Your task to perform on an android device: open sync settings in chrome Image 0: 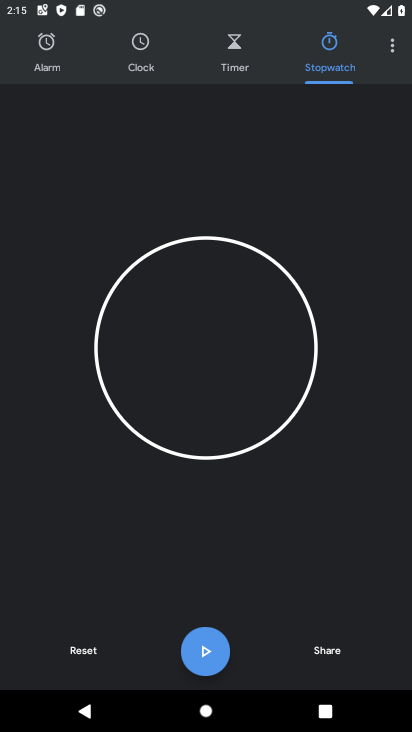
Step 0: press home button
Your task to perform on an android device: open sync settings in chrome Image 1: 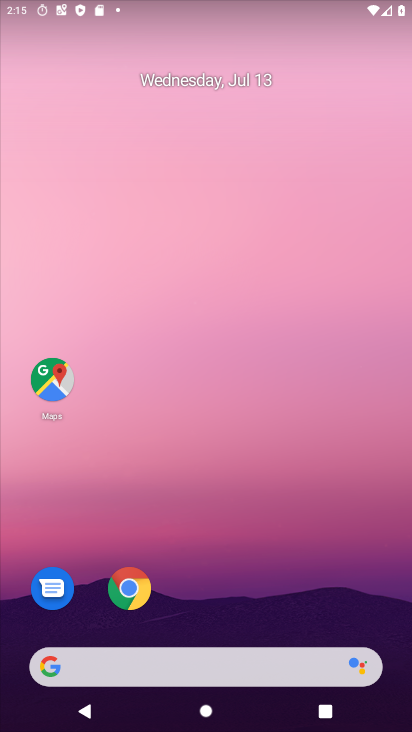
Step 1: click (132, 584)
Your task to perform on an android device: open sync settings in chrome Image 2: 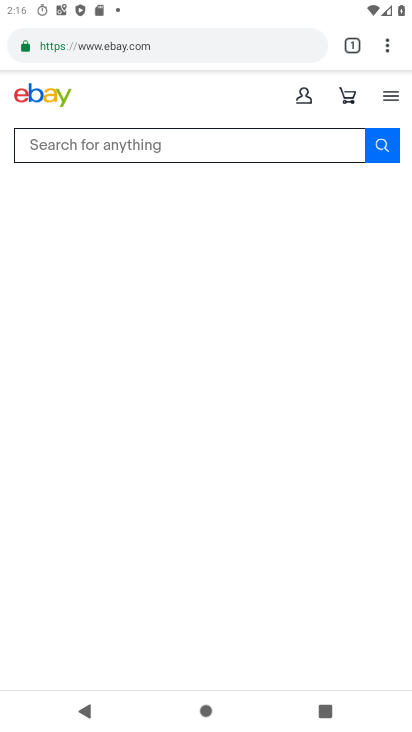
Step 2: click (390, 49)
Your task to perform on an android device: open sync settings in chrome Image 3: 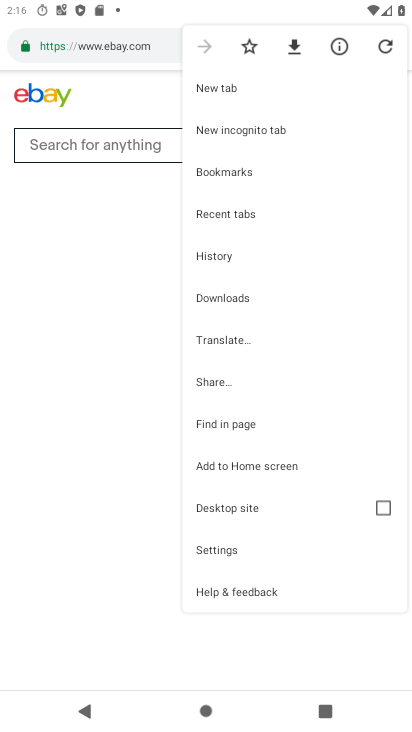
Step 3: click (229, 552)
Your task to perform on an android device: open sync settings in chrome Image 4: 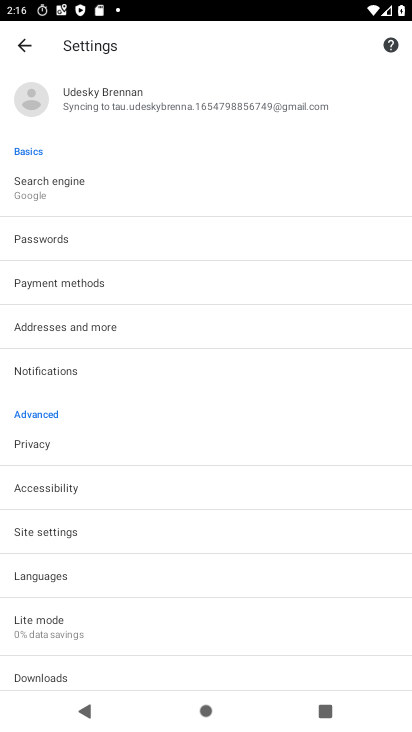
Step 4: click (91, 101)
Your task to perform on an android device: open sync settings in chrome Image 5: 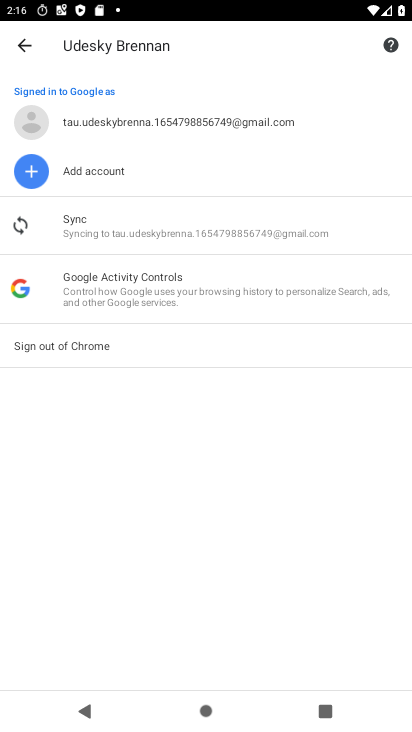
Step 5: click (92, 231)
Your task to perform on an android device: open sync settings in chrome Image 6: 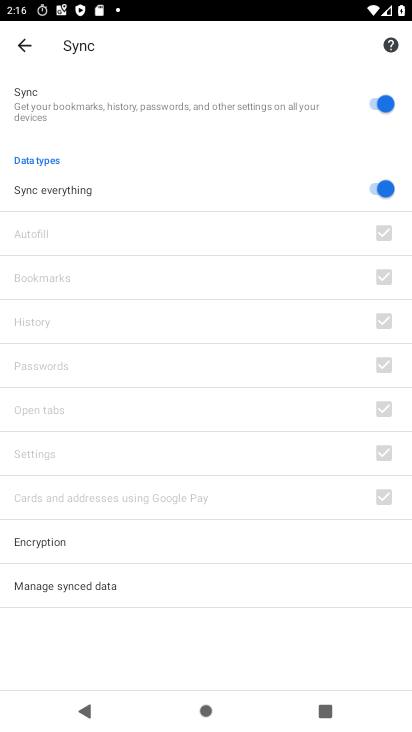
Step 6: task complete